Your task to perform on an android device: Open maps Image 0: 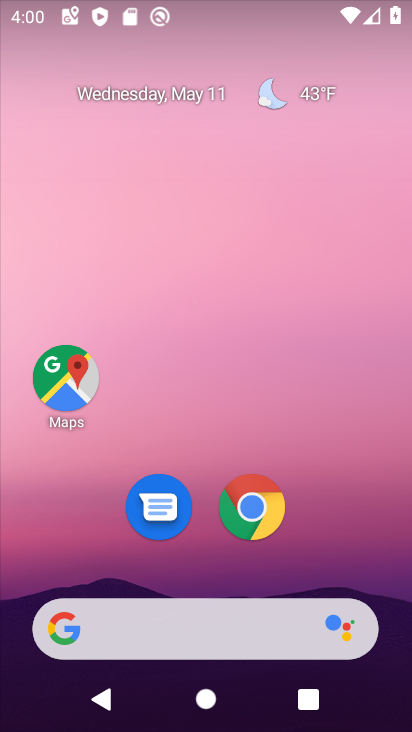
Step 0: drag from (273, 511) to (327, 148)
Your task to perform on an android device: Open maps Image 1: 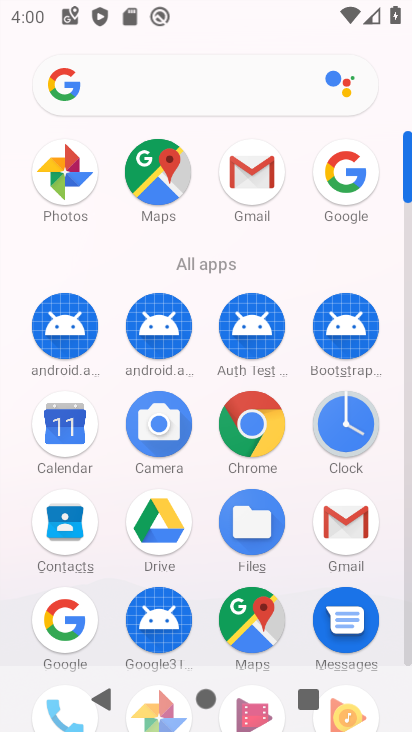
Step 1: click (157, 188)
Your task to perform on an android device: Open maps Image 2: 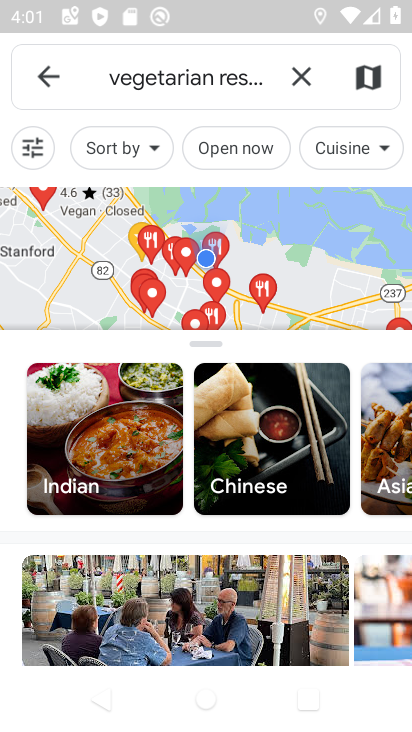
Step 2: task complete